Your task to perform on an android device: Go to sound settings Image 0: 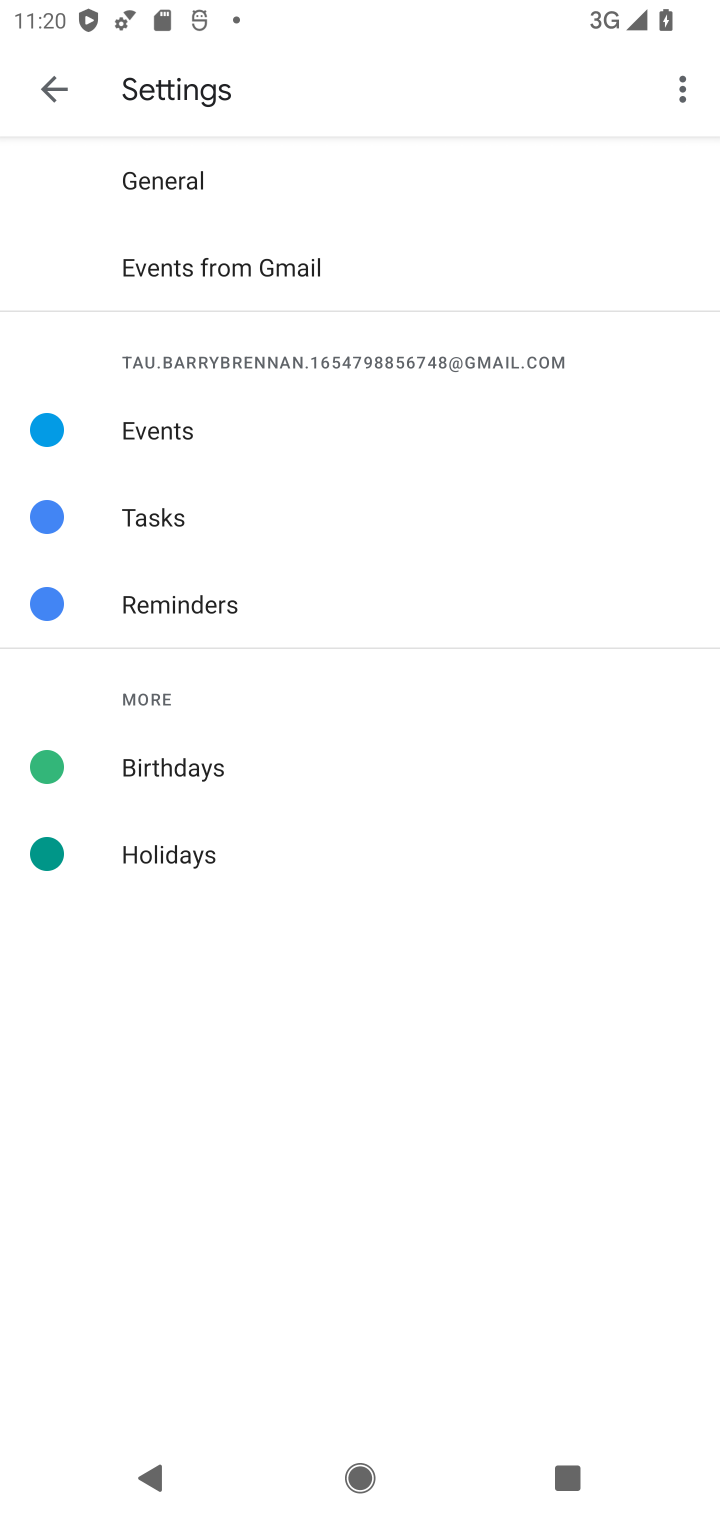
Step 0: press home button
Your task to perform on an android device: Go to sound settings Image 1: 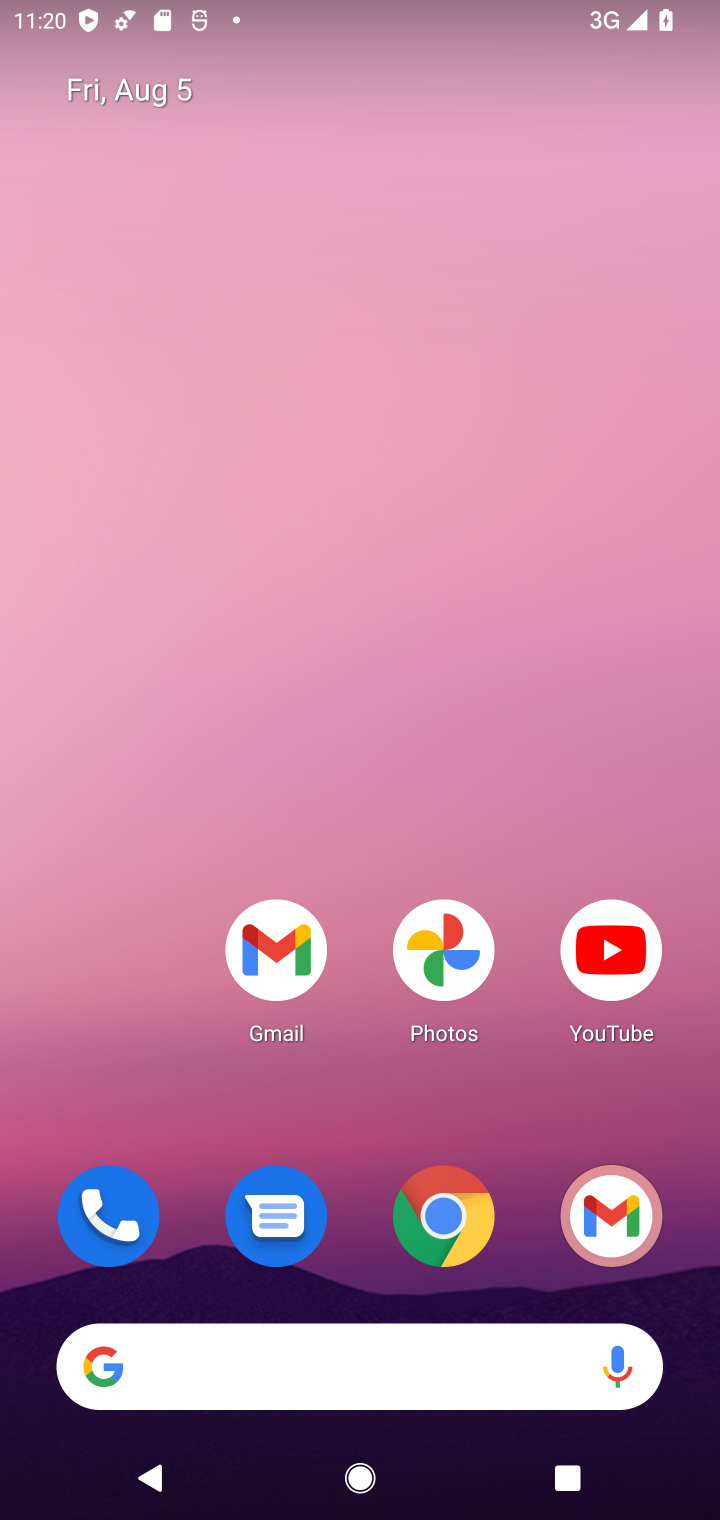
Step 1: drag from (482, 1368) to (490, 439)
Your task to perform on an android device: Go to sound settings Image 2: 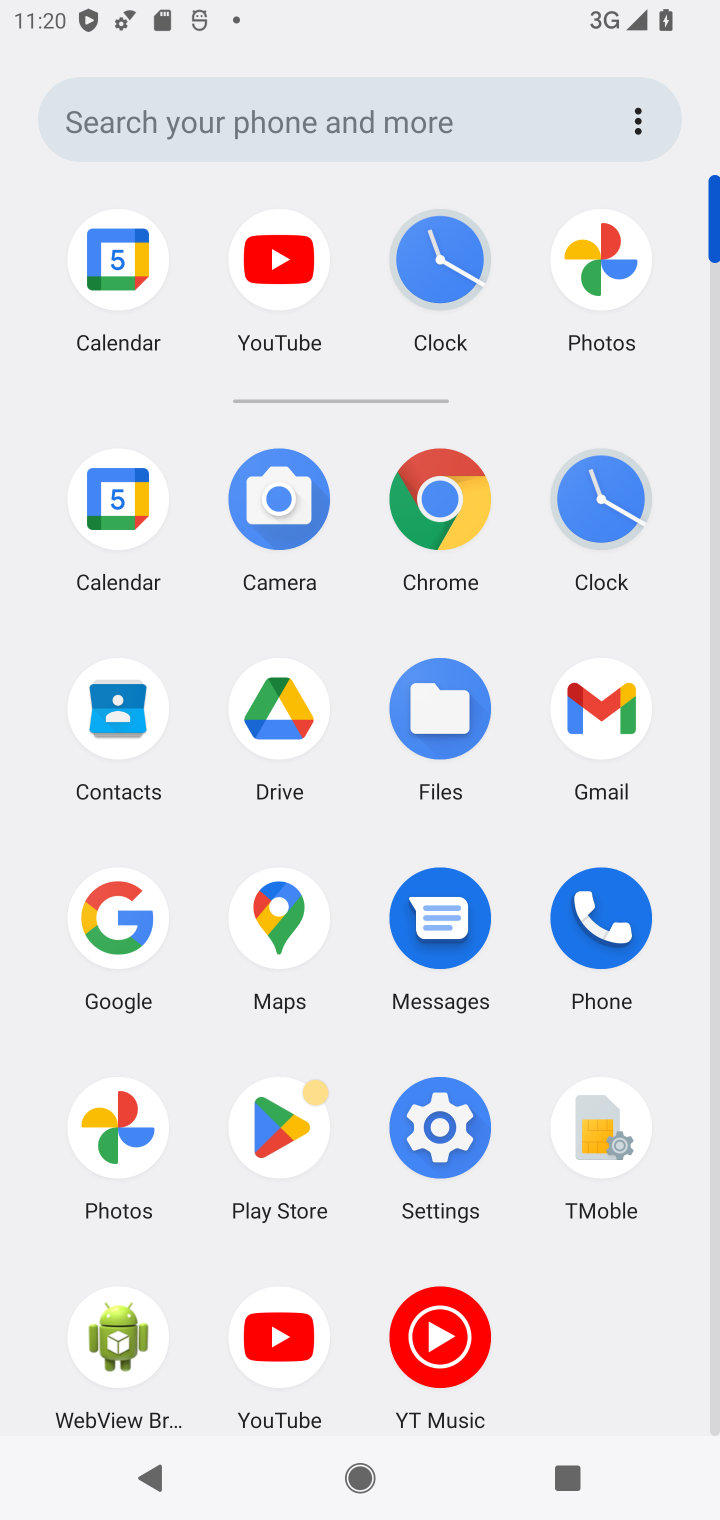
Step 2: click (443, 1140)
Your task to perform on an android device: Go to sound settings Image 3: 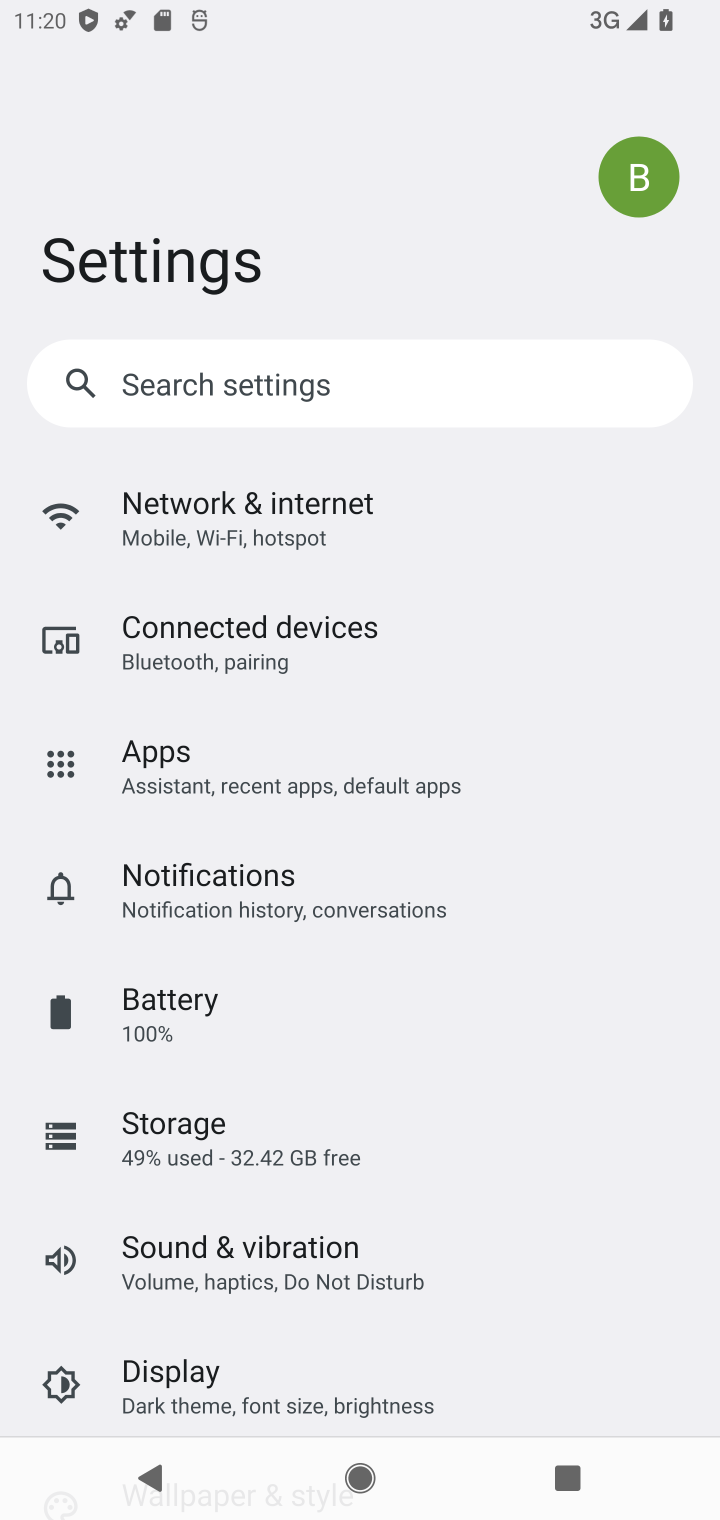
Step 3: click (267, 1253)
Your task to perform on an android device: Go to sound settings Image 4: 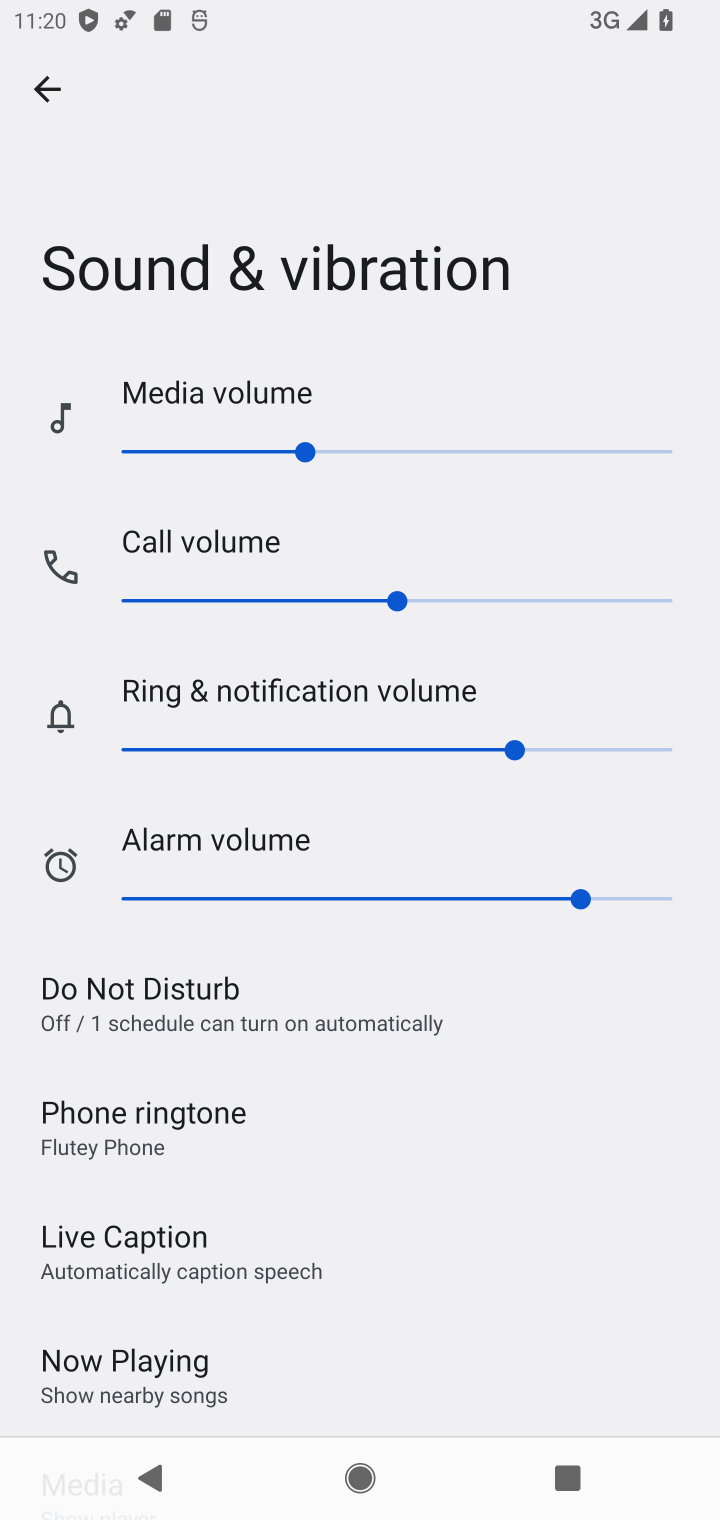
Step 4: task complete